Your task to perform on an android device: change alarm snooze length Image 0: 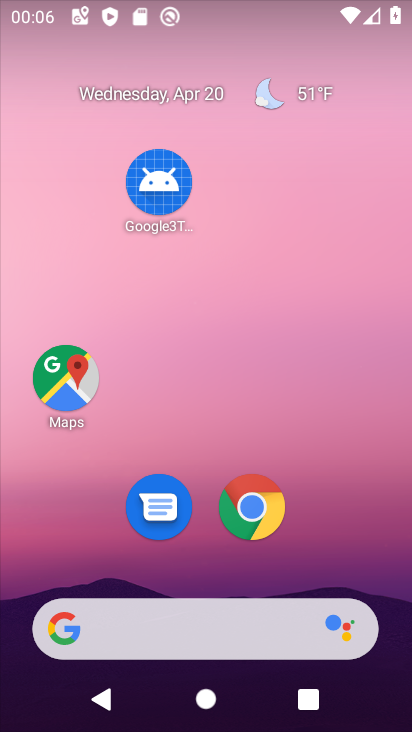
Step 0: drag from (212, 568) to (232, 1)
Your task to perform on an android device: change alarm snooze length Image 1: 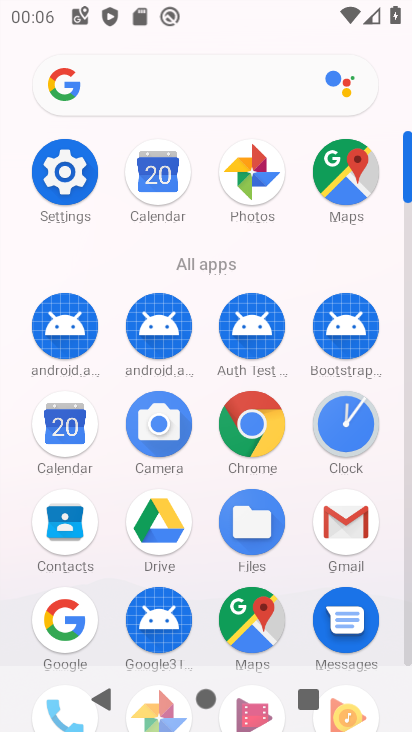
Step 1: click (331, 425)
Your task to perform on an android device: change alarm snooze length Image 2: 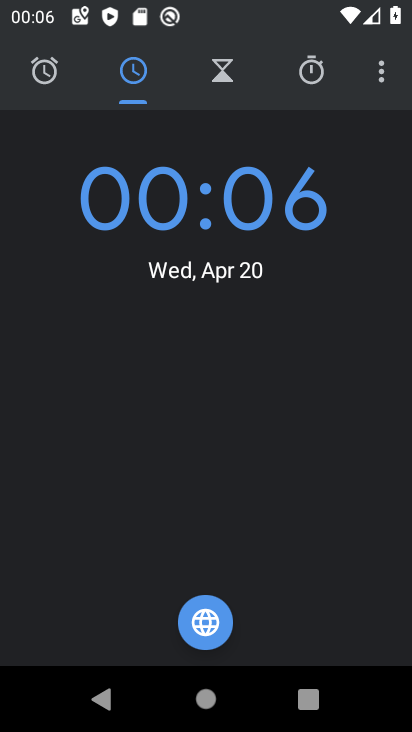
Step 2: click (377, 74)
Your task to perform on an android device: change alarm snooze length Image 3: 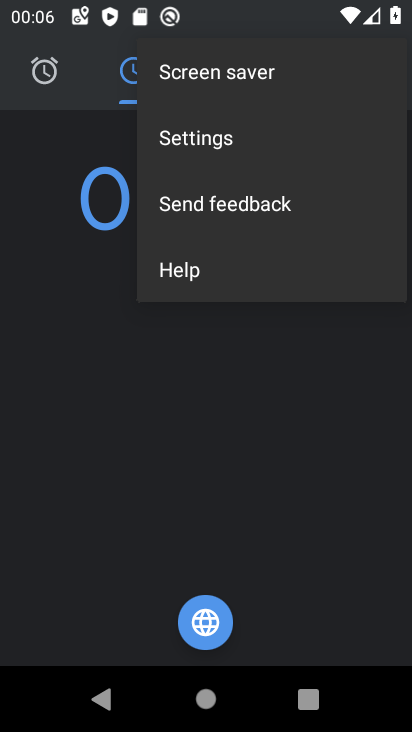
Step 3: click (182, 136)
Your task to perform on an android device: change alarm snooze length Image 4: 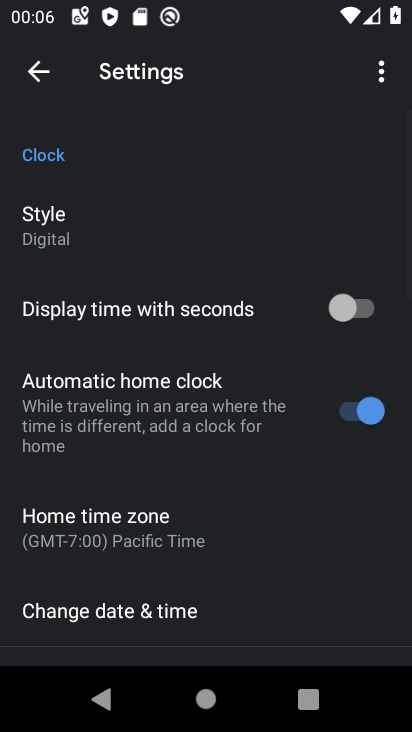
Step 4: drag from (261, 620) to (228, 22)
Your task to perform on an android device: change alarm snooze length Image 5: 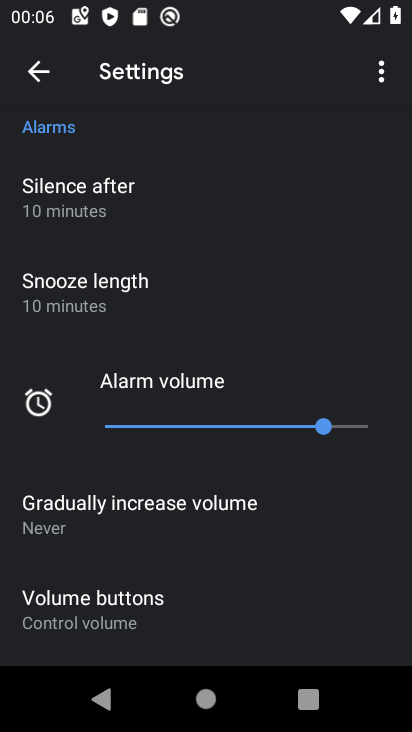
Step 5: drag from (177, 590) to (163, 473)
Your task to perform on an android device: change alarm snooze length Image 6: 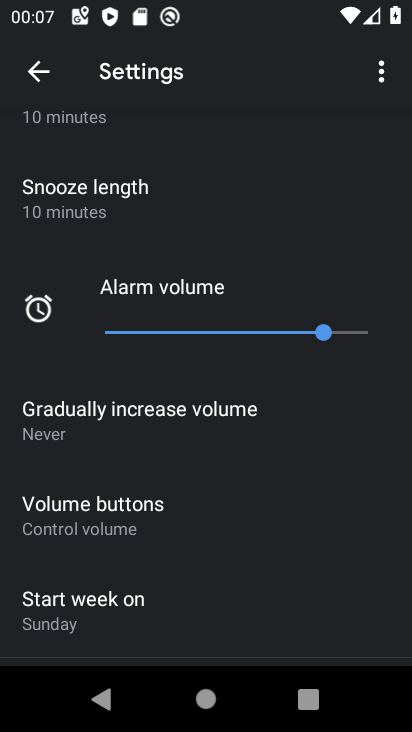
Step 6: click (91, 192)
Your task to perform on an android device: change alarm snooze length Image 7: 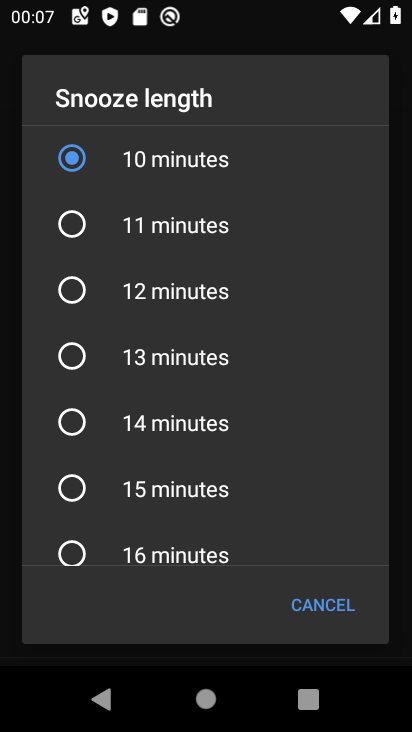
Step 7: click (66, 221)
Your task to perform on an android device: change alarm snooze length Image 8: 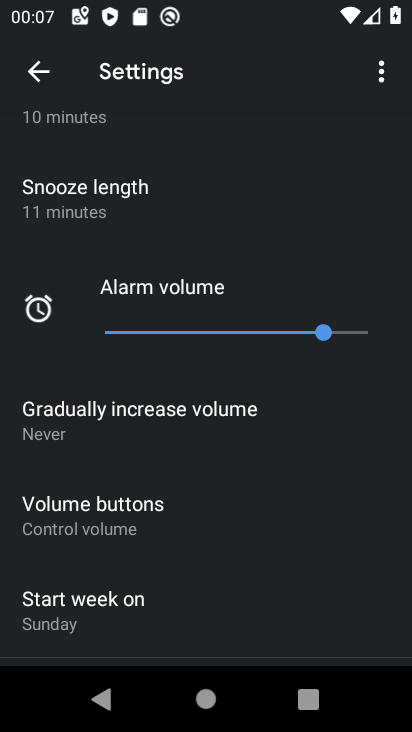
Step 8: task complete